Your task to perform on an android device: Open Google Maps and go to "Timeline" Image 0: 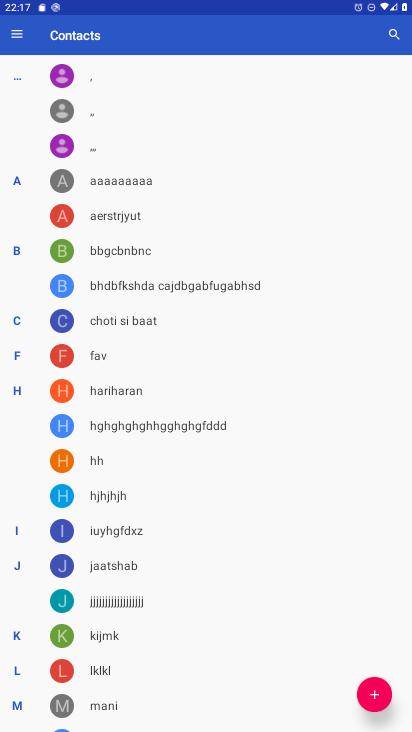
Step 0: press home button
Your task to perform on an android device: Open Google Maps and go to "Timeline" Image 1: 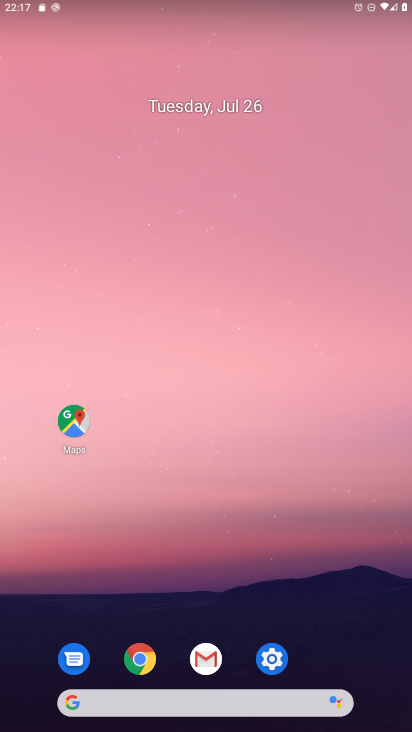
Step 1: click (81, 413)
Your task to perform on an android device: Open Google Maps and go to "Timeline" Image 2: 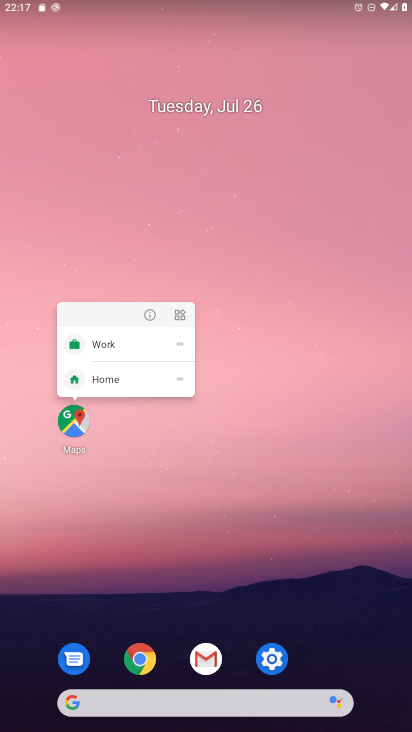
Step 2: click (68, 431)
Your task to perform on an android device: Open Google Maps and go to "Timeline" Image 3: 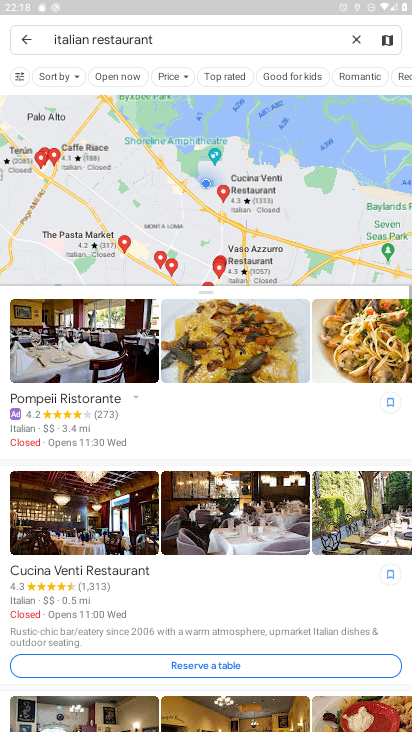
Step 3: click (25, 41)
Your task to perform on an android device: Open Google Maps and go to "Timeline" Image 4: 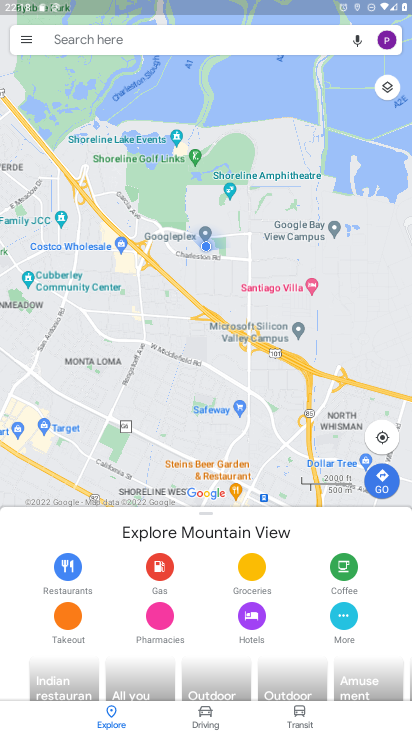
Step 4: click (29, 37)
Your task to perform on an android device: Open Google Maps and go to "Timeline" Image 5: 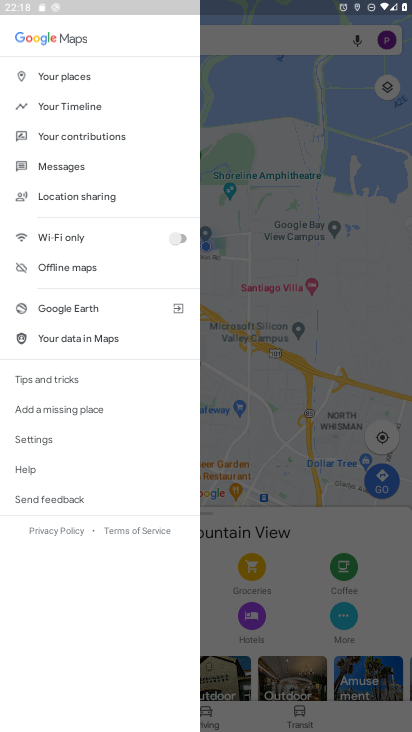
Step 5: click (75, 105)
Your task to perform on an android device: Open Google Maps and go to "Timeline" Image 6: 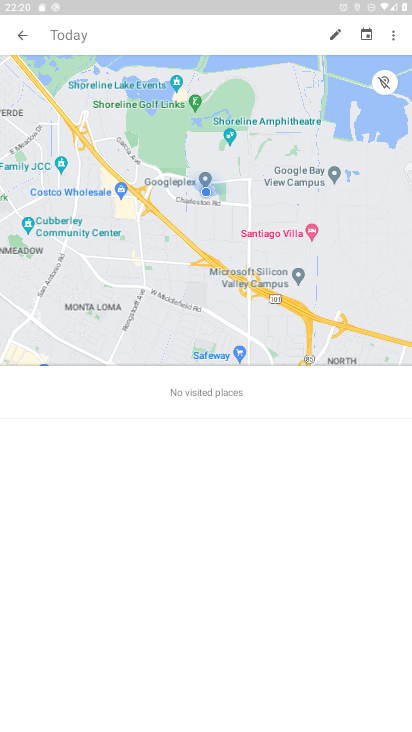
Step 6: task complete